Your task to perform on an android device: uninstall "DoorDash - Dasher" Image 0: 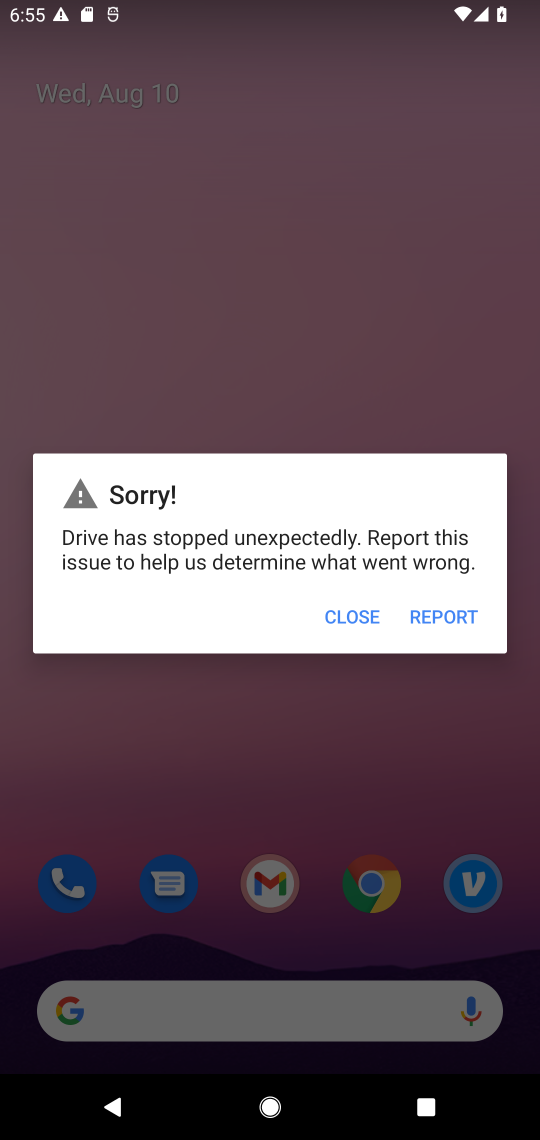
Step 0: press home button
Your task to perform on an android device: uninstall "DoorDash - Dasher" Image 1: 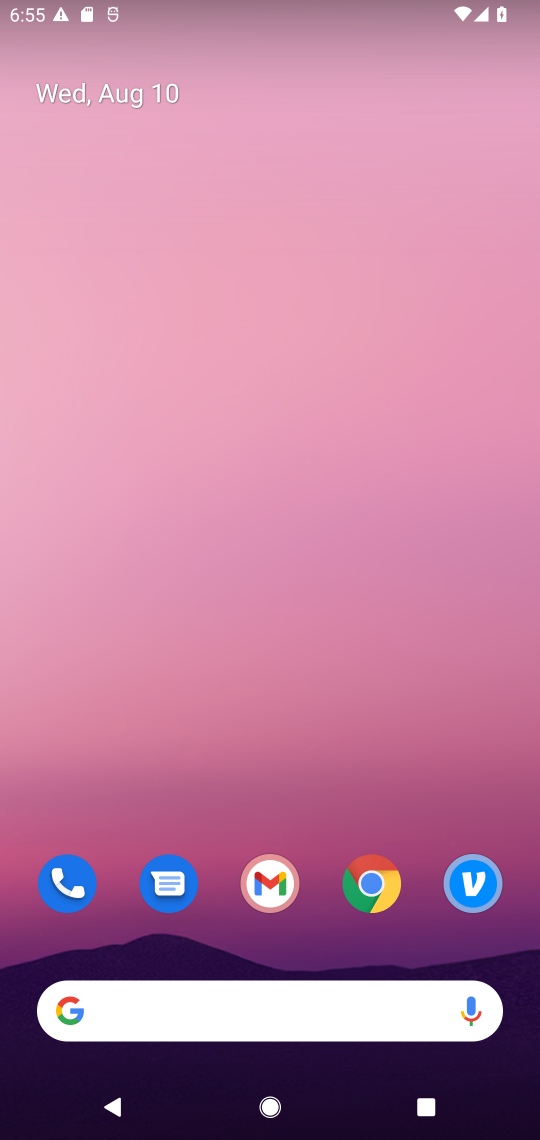
Step 1: drag from (353, 976) to (286, 319)
Your task to perform on an android device: uninstall "DoorDash - Dasher" Image 2: 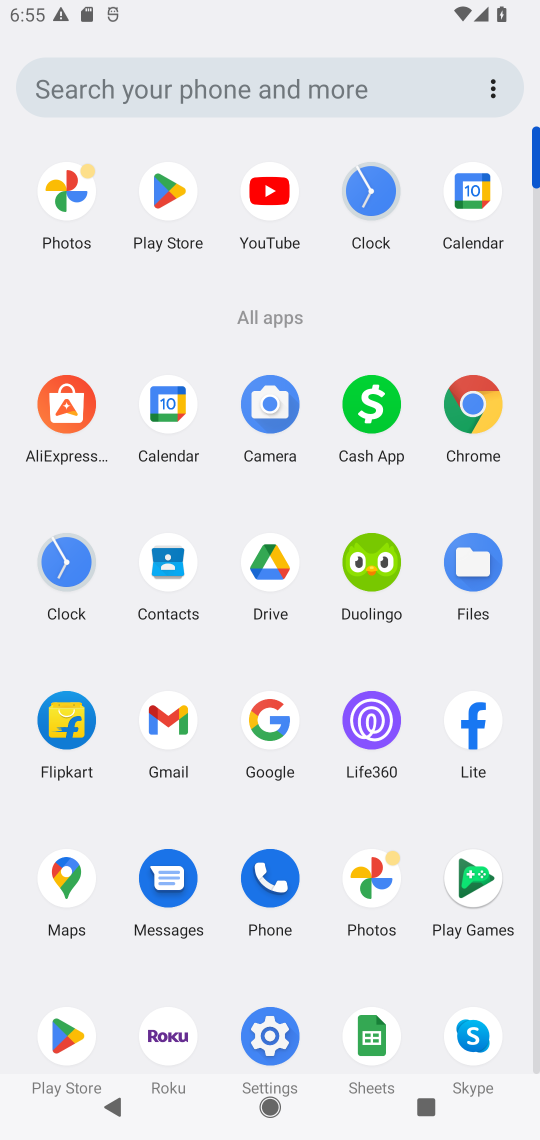
Step 2: click (59, 1037)
Your task to perform on an android device: uninstall "DoorDash - Dasher" Image 3: 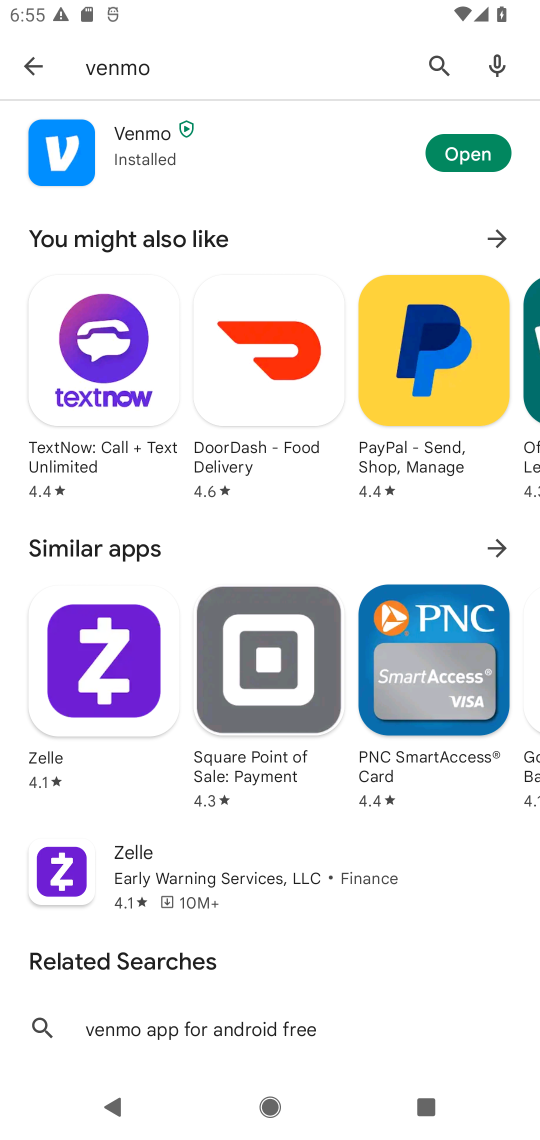
Step 3: click (438, 61)
Your task to perform on an android device: uninstall "DoorDash - Dasher" Image 4: 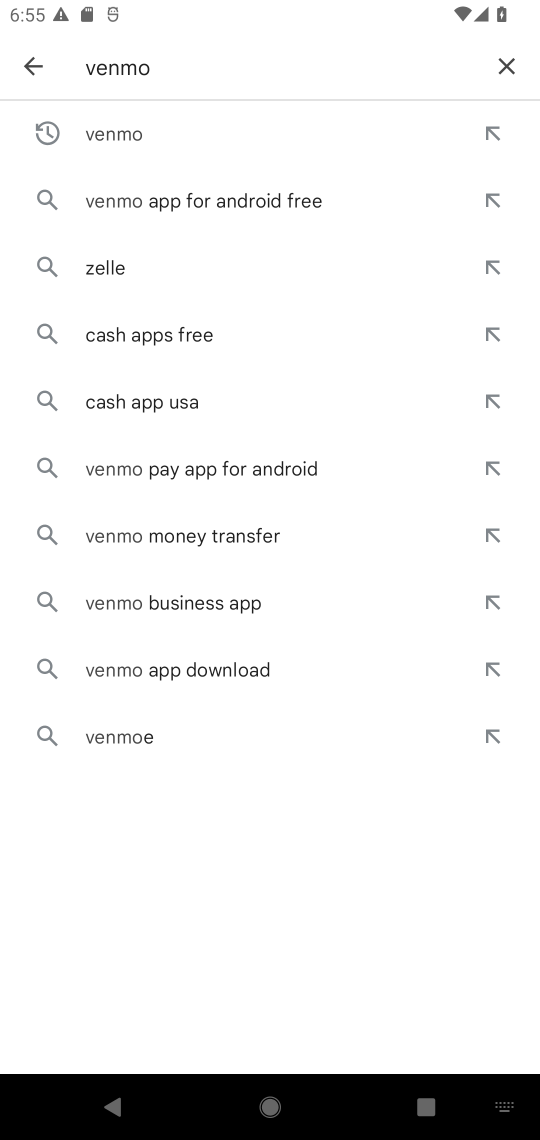
Step 4: click (500, 58)
Your task to perform on an android device: uninstall "DoorDash - Dasher" Image 5: 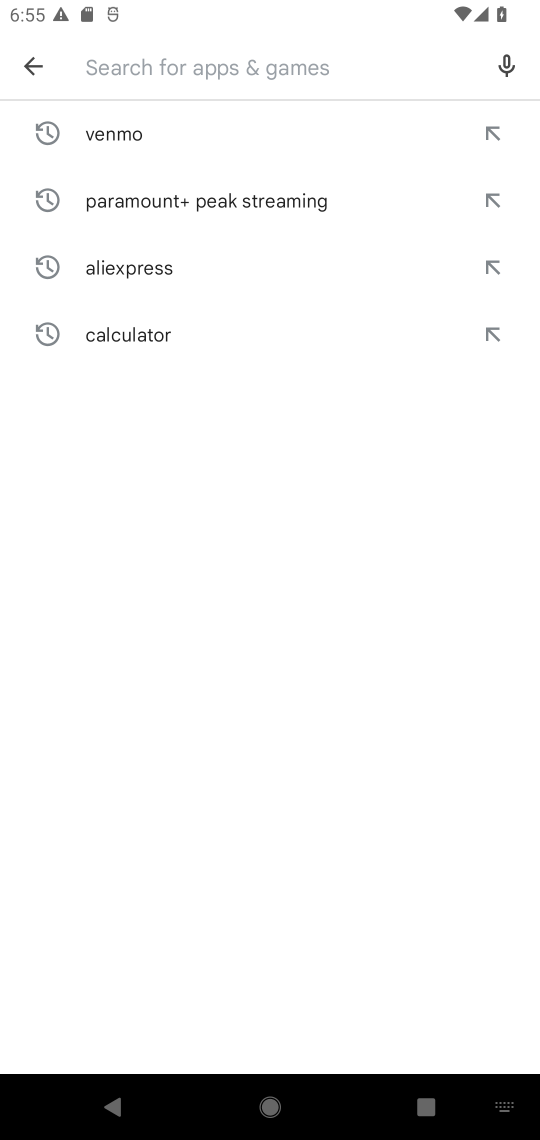
Step 5: type "DoorDash - Dasher"
Your task to perform on an android device: uninstall "DoorDash - Dasher" Image 6: 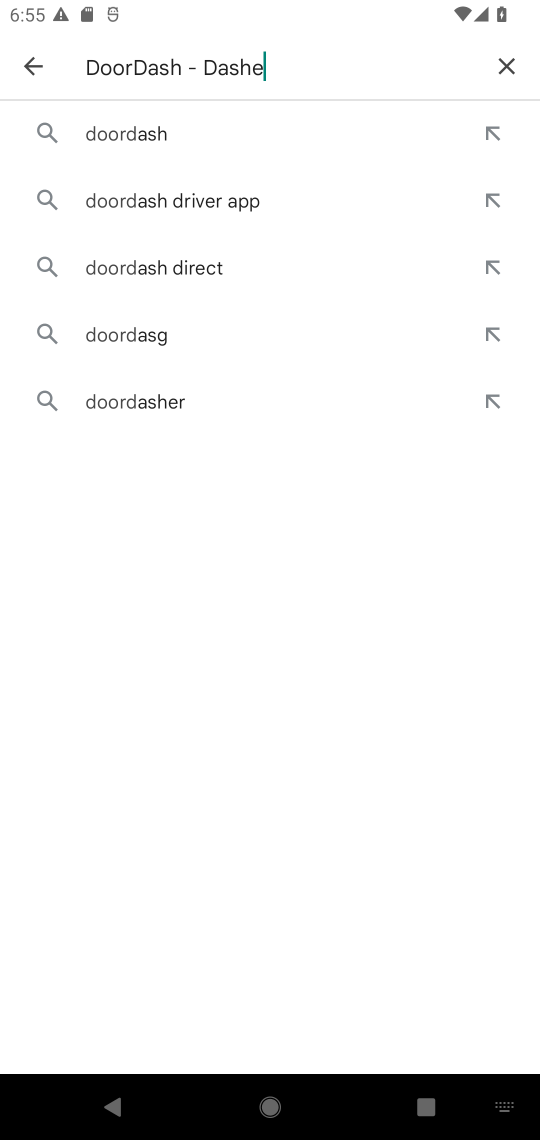
Step 6: type ""
Your task to perform on an android device: uninstall "DoorDash - Dasher" Image 7: 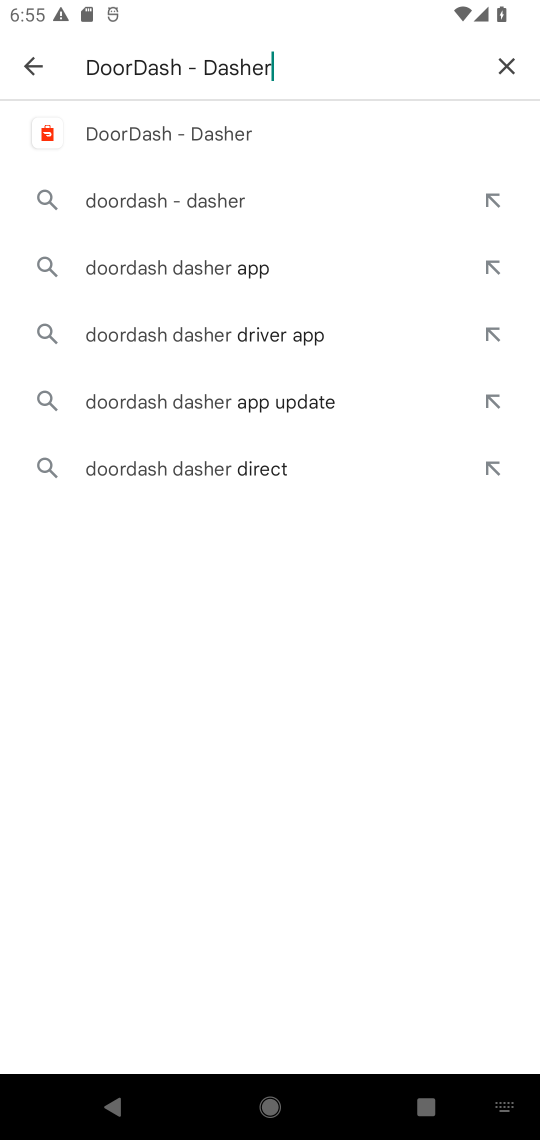
Step 7: click (116, 127)
Your task to perform on an android device: uninstall "DoorDash - Dasher" Image 8: 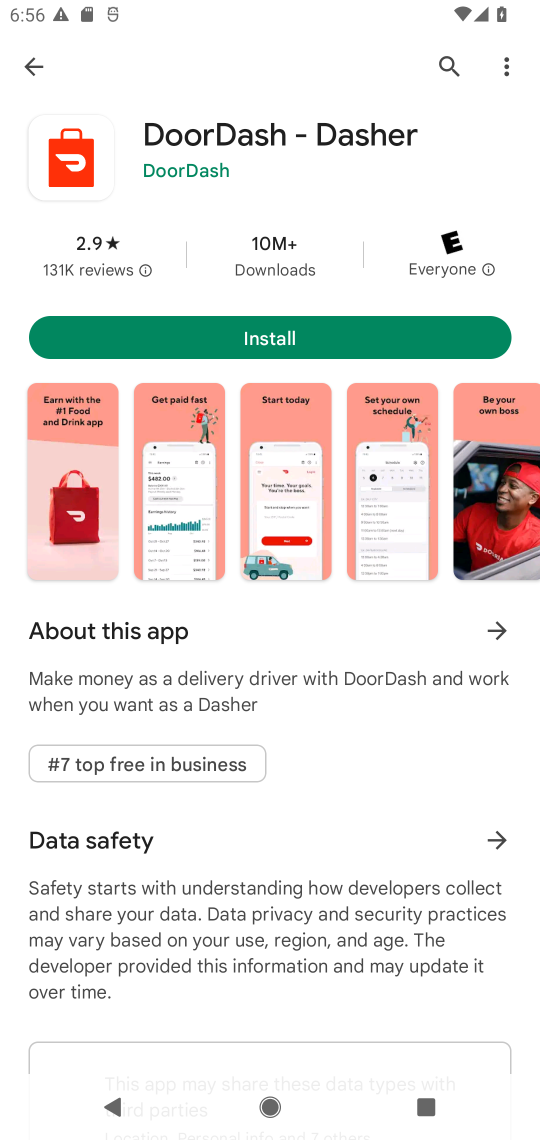
Step 8: task complete